Your task to perform on an android device: Clear all items from cart on amazon. Add "asus rog" to the cart on amazon, then select checkout. Image 0: 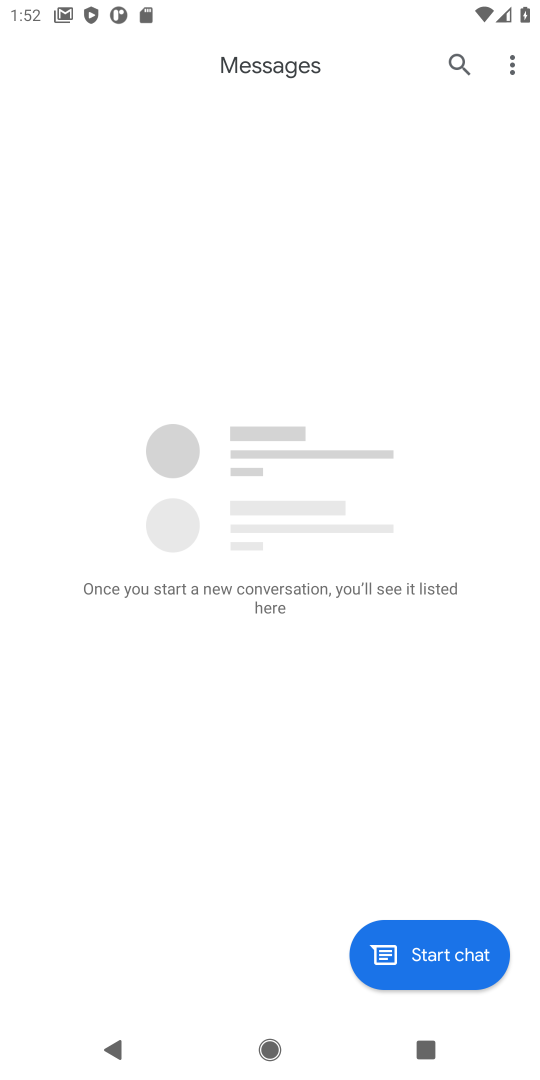
Step 0: press home button
Your task to perform on an android device: Clear all items from cart on amazon. Add "asus rog" to the cart on amazon, then select checkout. Image 1: 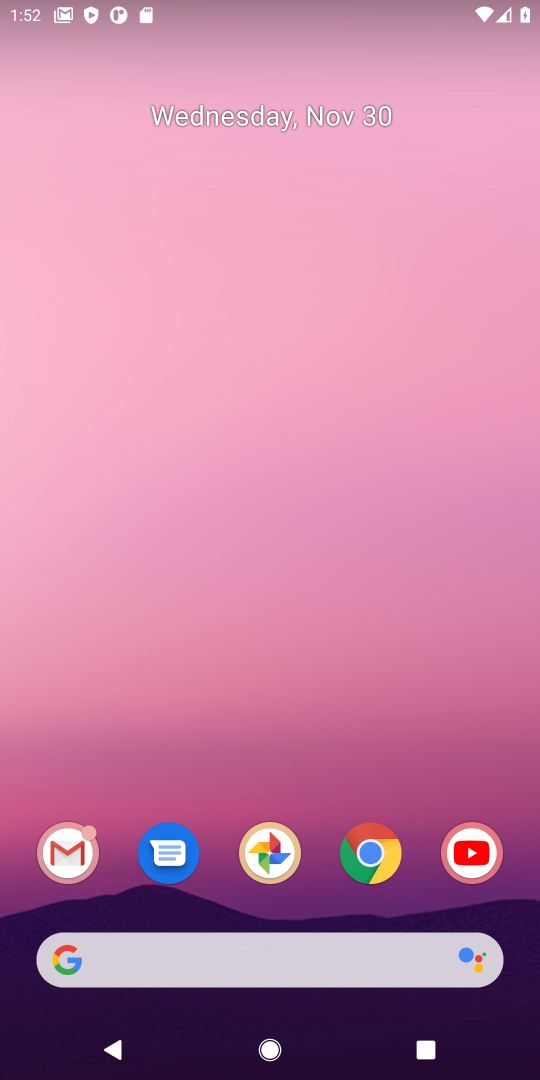
Step 1: click (368, 865)
Your task to perform on an android device: Clear all items from cart on amazon. Add "asus rog" to the cart on amazon, then select checkout. Image 2: 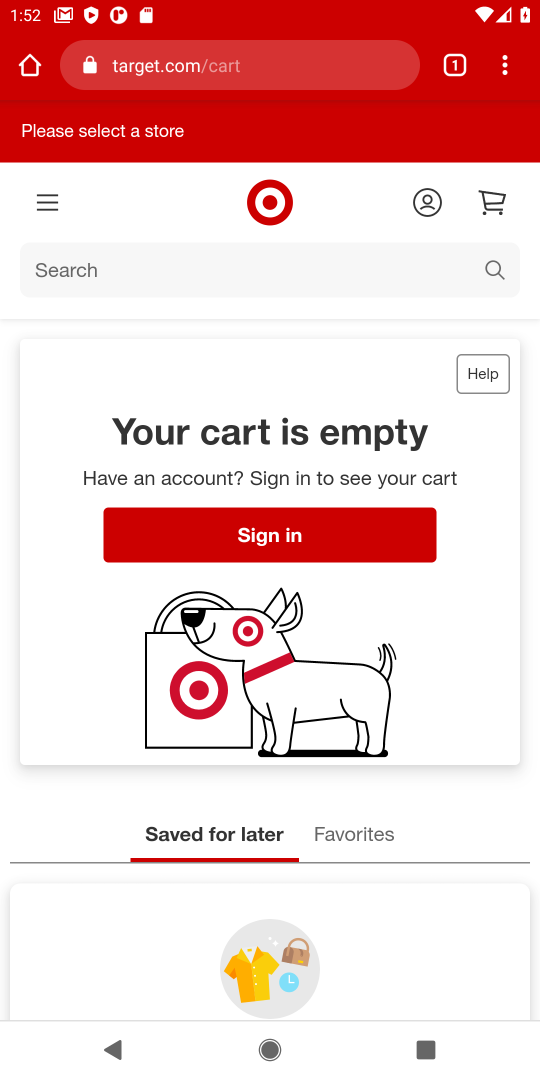
Step 2: click (200, 61)
Your task to perform on an android device: Clear all items from cart on amazon. Add "asus rog" to the cart on amazon, then select checkout. Image 3: 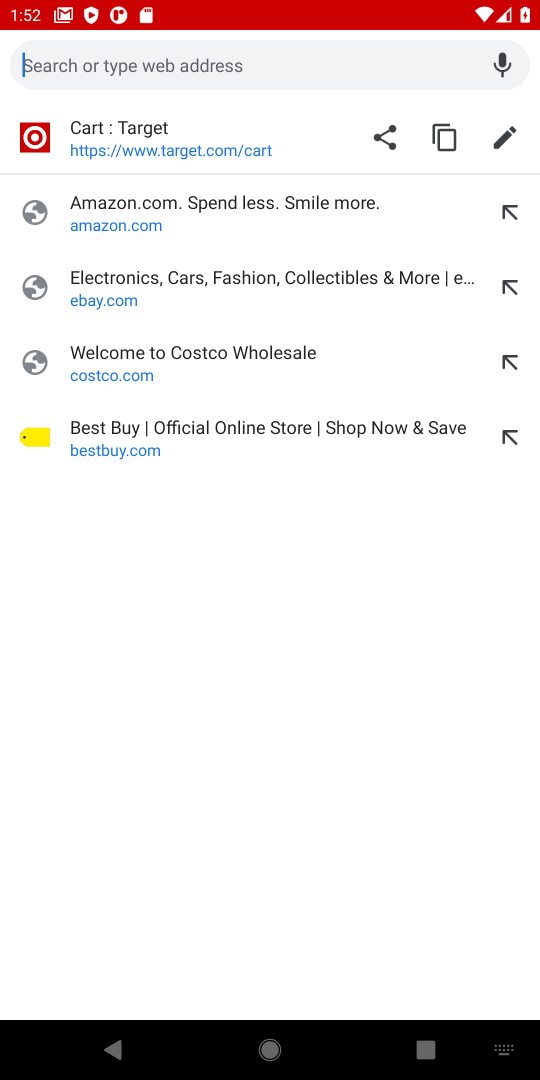
Step 3: click (98, 219)
Your task to perform on an android device: Clear all items from cart on amazon. Add "asus rog" to the cart on amazon, then select checkout. Image 4: 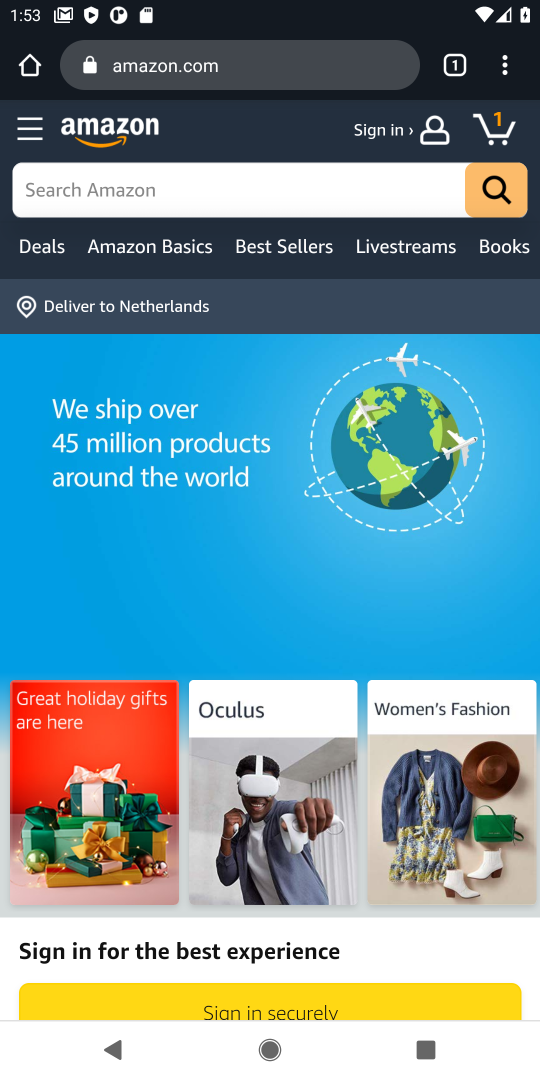
Step 4: click (493, 123)
Your task to perform on an android device: Clear all items from cart on amazon. Add "asus rog" to the cart on amazon, then select checkout. Image 5: 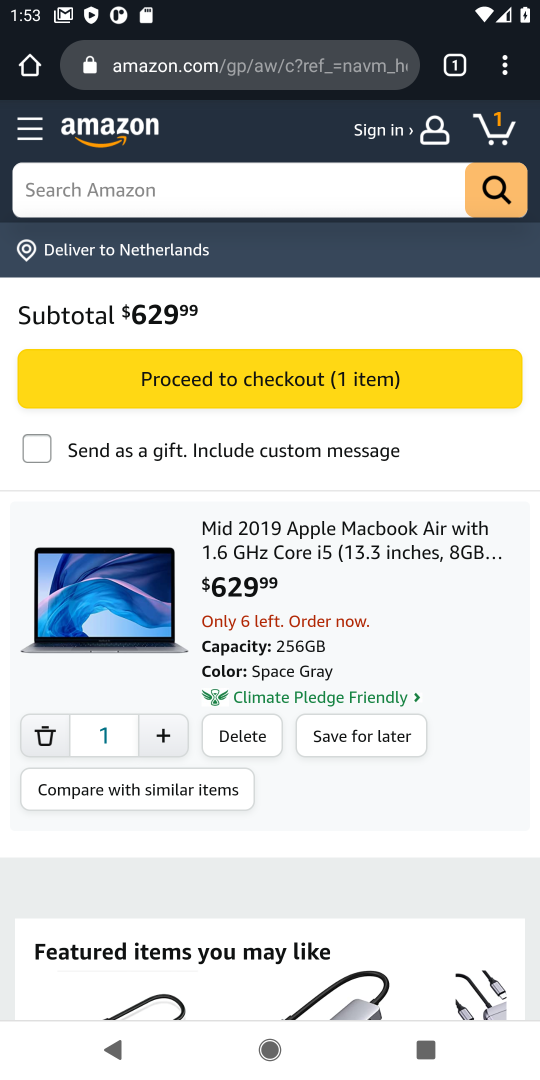
Step 5: click (225, 727)
Your task to perform on an android device: Clear all items from cart on amazon. Add "asus rog" to the cart on amazon, then select checkout. Image 6: 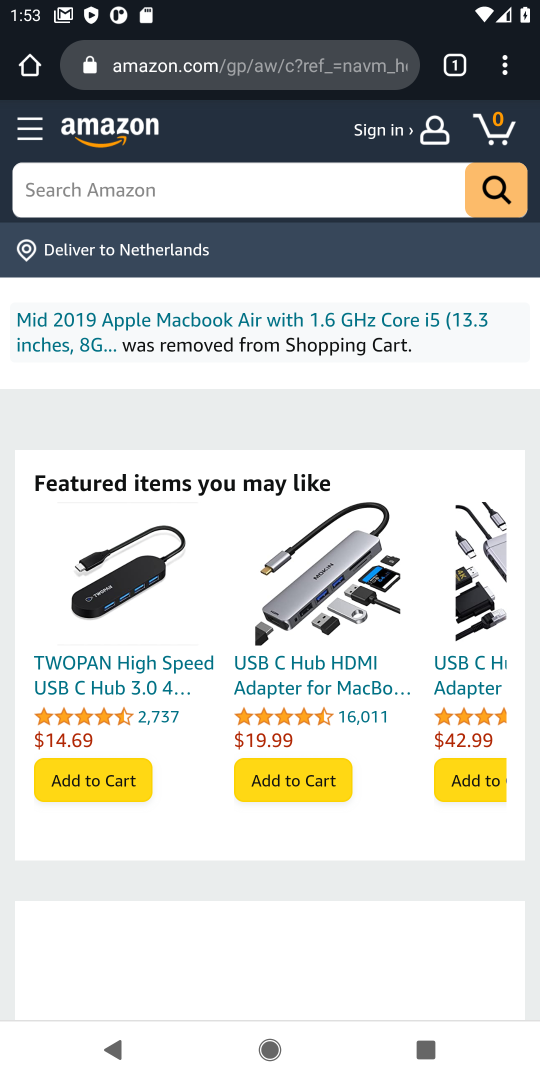
Step 6: click (119, 181)
Your task to perform on an android device: Clear all items from cart on amazon. Add "asus rog" to the cart on amazon, then select checkout. Image 7: 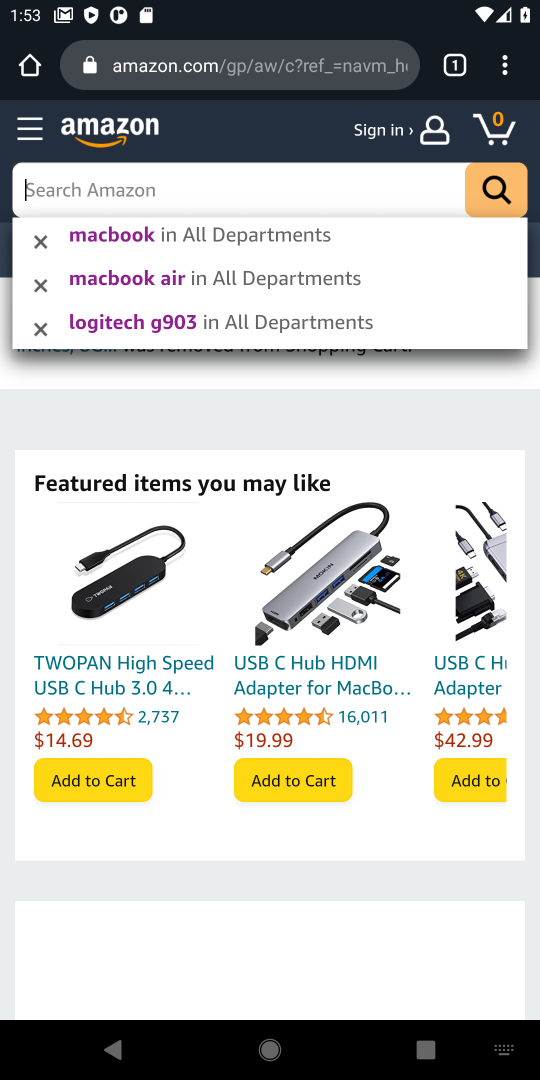
Step 7: type "asus rog "
Your task to perform on an android device: Clear all items from cart on amazon. Add "asus rog" to the cart on amazon, then select checkout. Image 8: 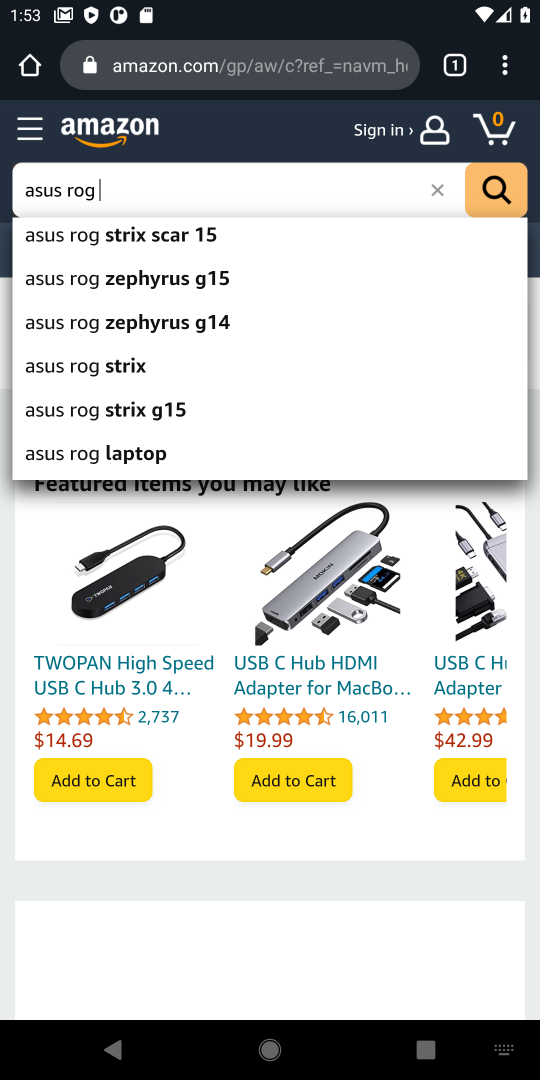
Step 8: click (501, 180)
Your task to perform on an android device: Clear all items from cart on amazon. Add "asus rog" to the cart on amazon, then select checkout. Image 9: 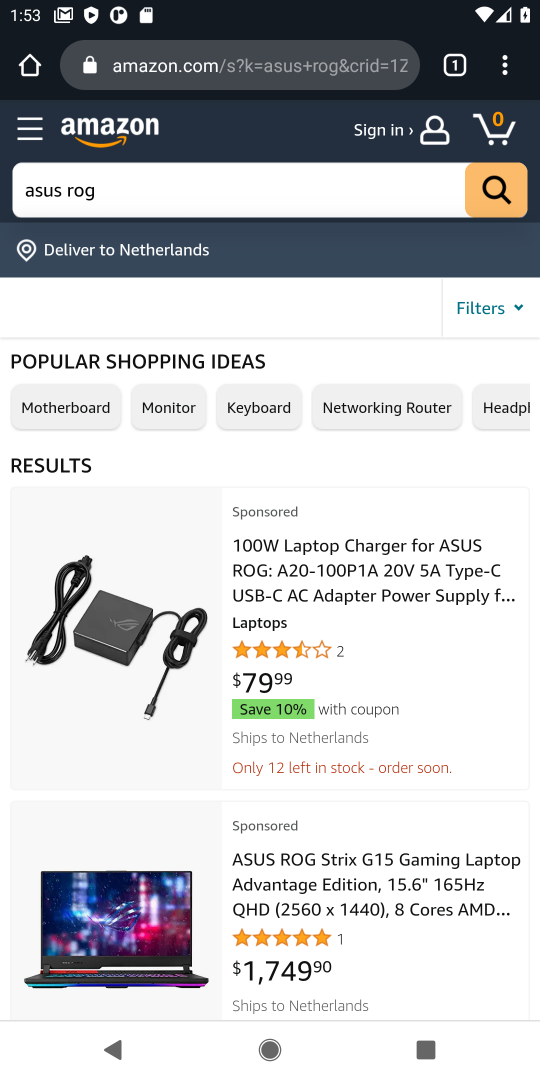
Step 9: click (271, 614)
Your task to perform on an android device: Clear all items from cart on amazon. Add "asus rog" to the cart on amazon, then select checkout. Image 10: 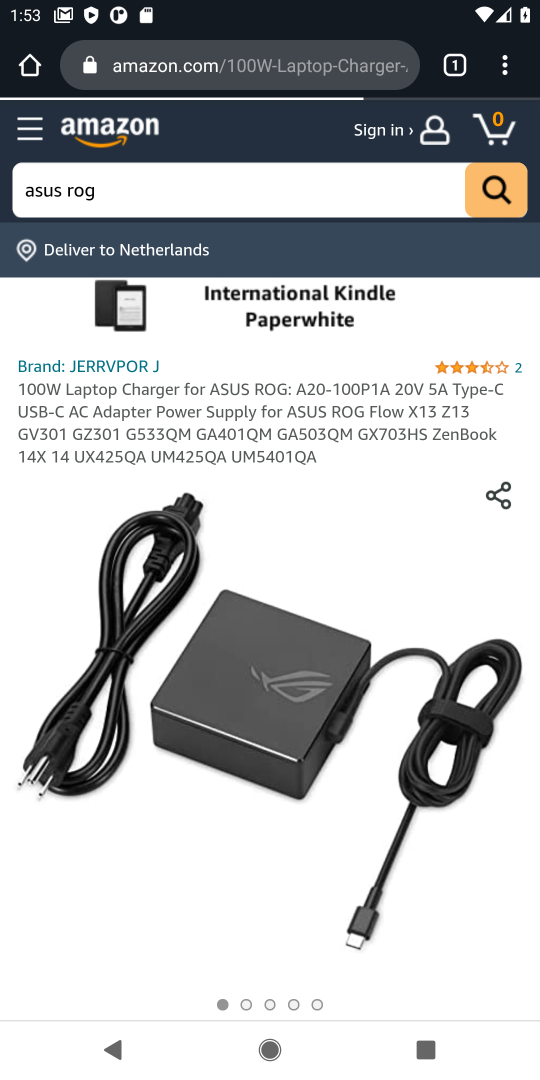
Step 10: drag from (277, 747) to (270, 564)
Your task to perform on an android device: Clear all items from cart on amazon. Add "asus rog" to the cart on amazon, then select checkout. Image 11: 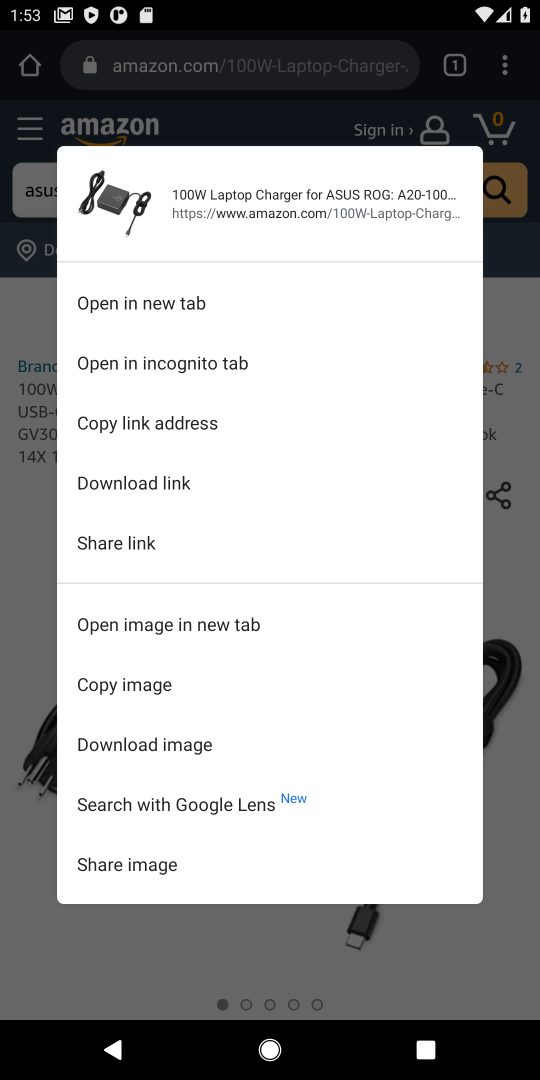
Step 11: drag from (504, 822) to (487, 448)
Your task to perform on an android device: Clear all items from cart on amazon. Add "asus rog" to the cart on amazon, then select checkout. Image 12: 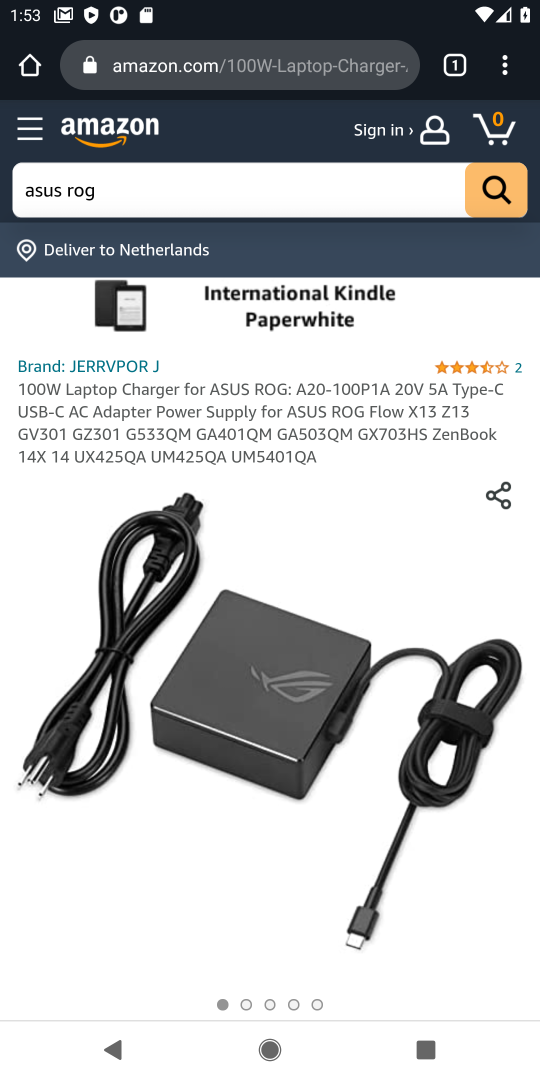
Step 12: drag from (445, 697) to (413, 238)
Your task to perform on an android device: Clear all items from cart on amazon. Add "asus rog" to the cart on amazon, then select checkout. Image 13: 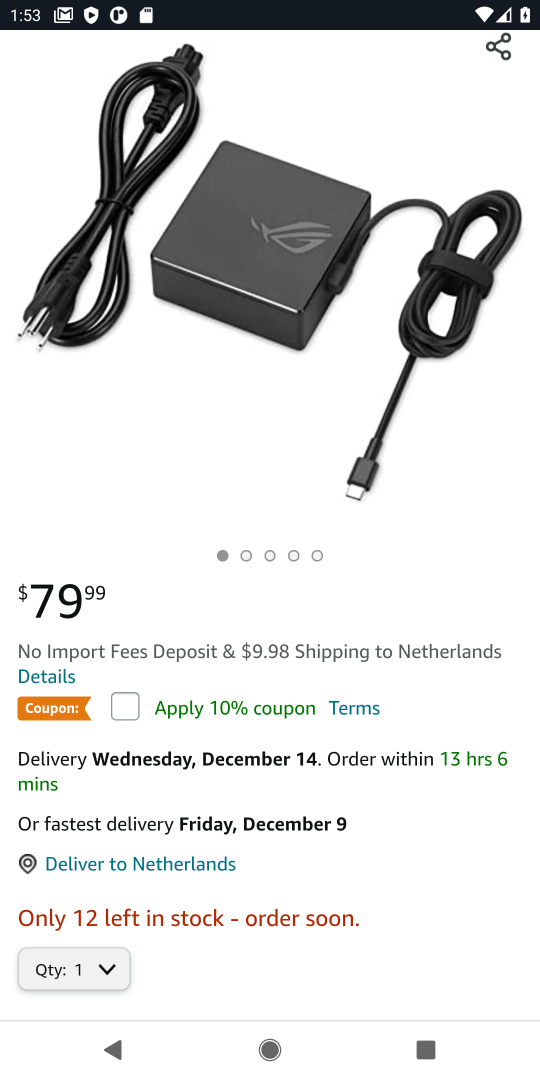
Step 13: drag from (399, 784) to (409, 314)
Your task to perform on an android device: Clear all items from cart on amazon. Add "asus rog" to the cart on amazon, then select checkout. Image 14: 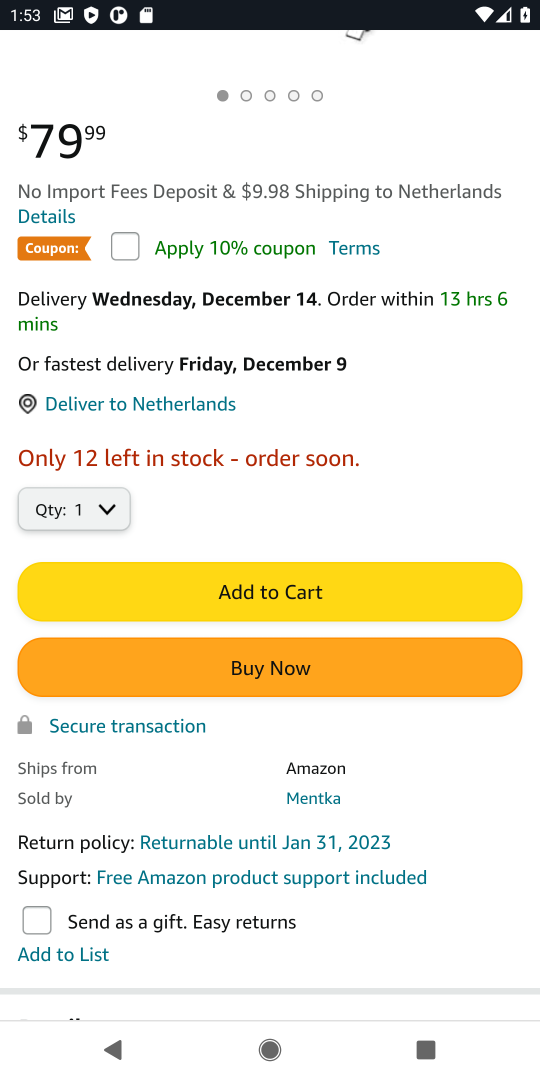
Step 14: click (251, 587)
Your task to perform on an android device: Clear all items from cart on amazon. Add "asus rog" to the cart on amazon, then select checkout. Image 15: 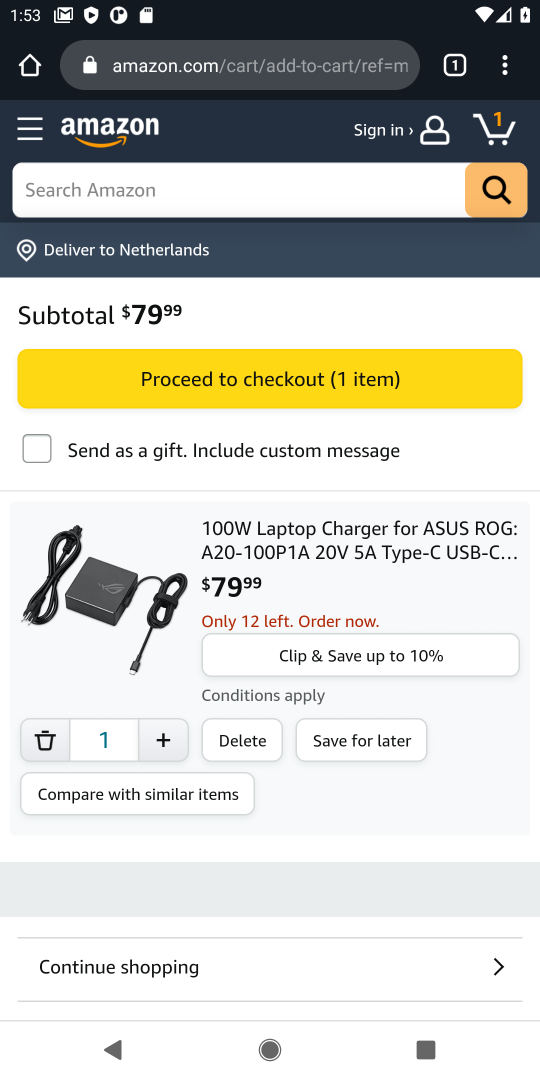
Step 15: click (250, 375)
Your task to perform on an android device: Clear all items from cart on amazon. Add "asus rog" to the cart on amazon, then select checkout. Image 16: 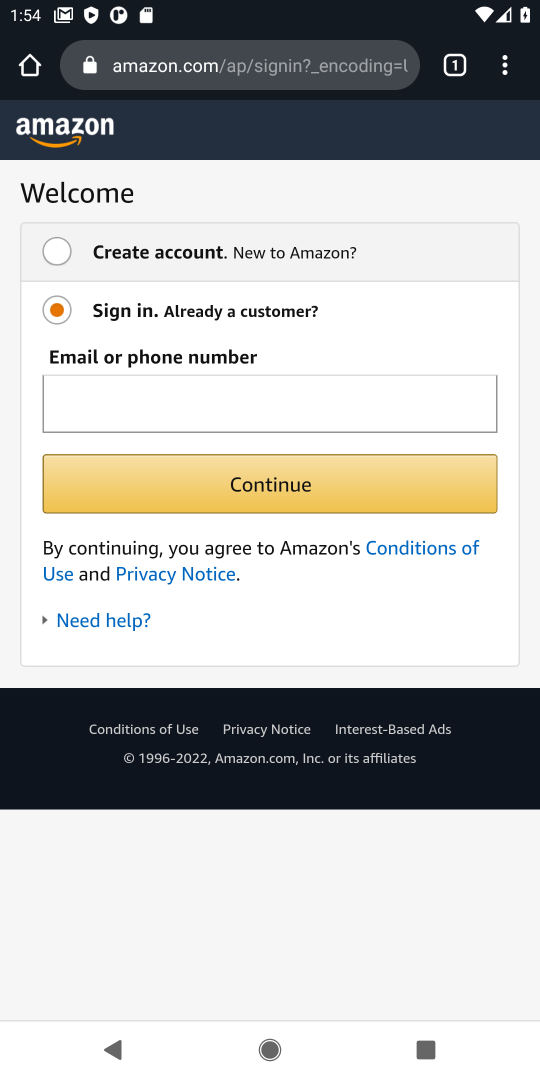
Step 16: task complete